Your task to perform on an android device: Go to notification settings Image 0: 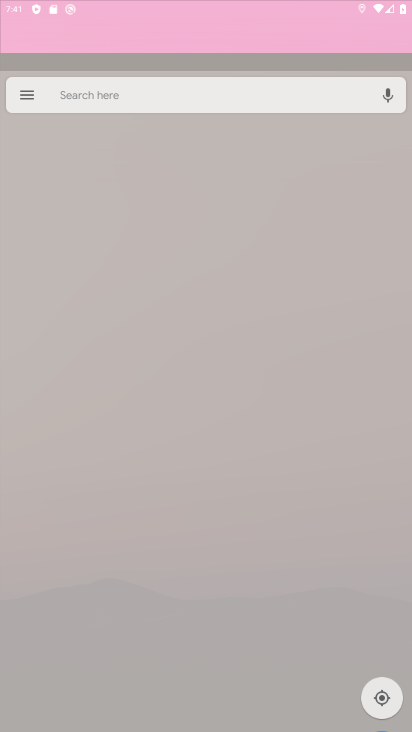
Step 0: click (240, 376)
Your task to perform on an android device: Go to notification settings Image 1: 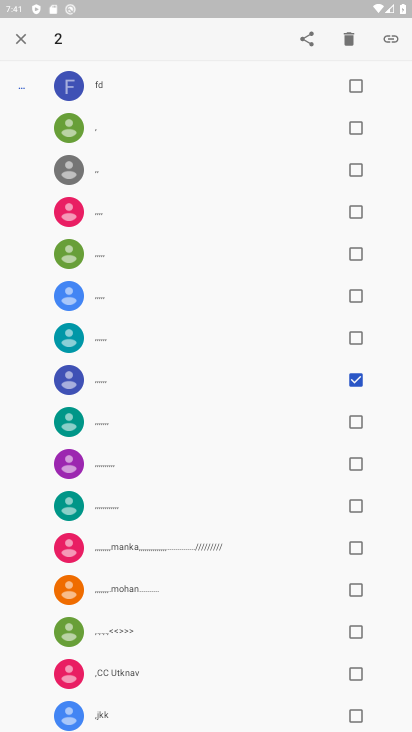
Step 1: press home button
Your task to perform on an android device: Go to notification settings Image 2: 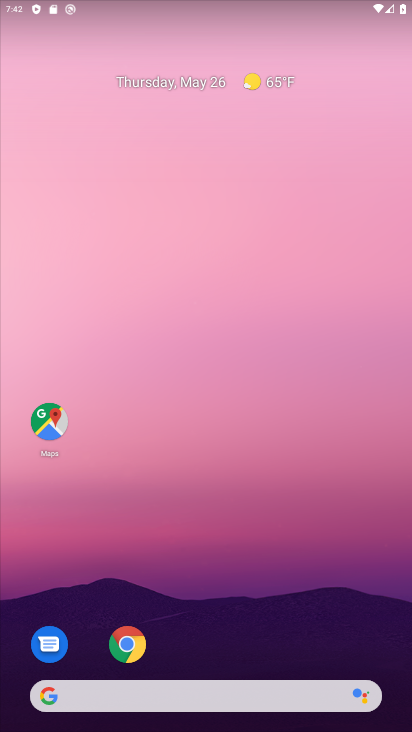
Step 2: drag from (180, 659) to (189, 82)
Your task to perform on an android device: Go to notification settings Image 3: 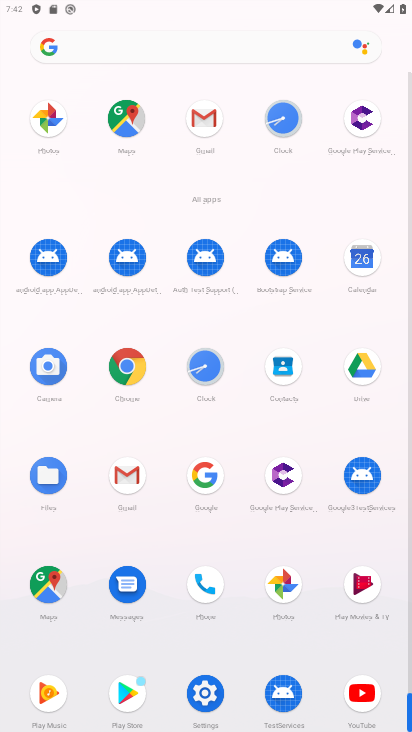
Step 3: click (211, 689)
Your task to perform on an android device: Go to notification settings Image 4: 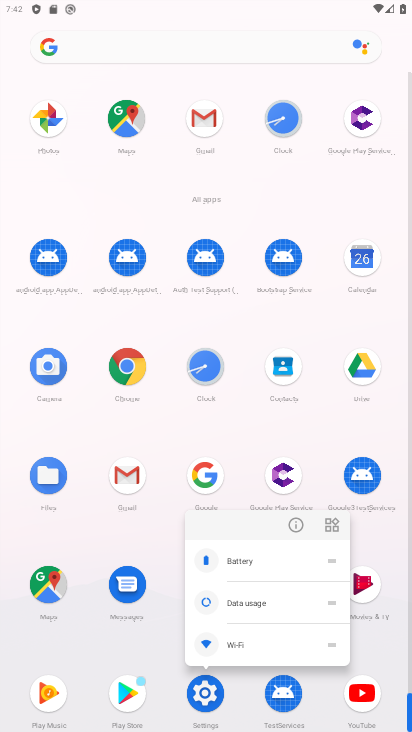
Step 4: click (293, 521)
Your task to perform on an android device: Go to notification settings Image 5: 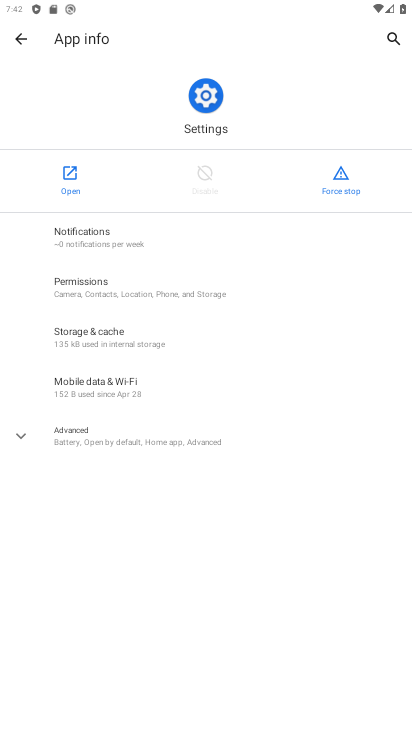
Step 5: click (65, 168)
Your task to perform on an android device: Go to notification settings Image 6: 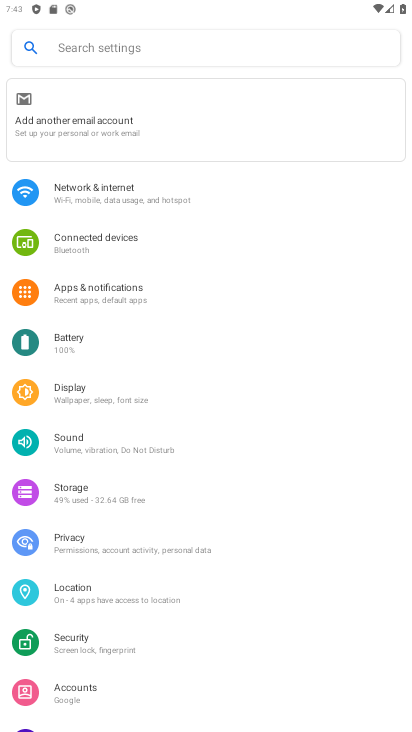
Step 6: click (67, 303)
Your task to perform on an android device: Go to notification settings Image 7: 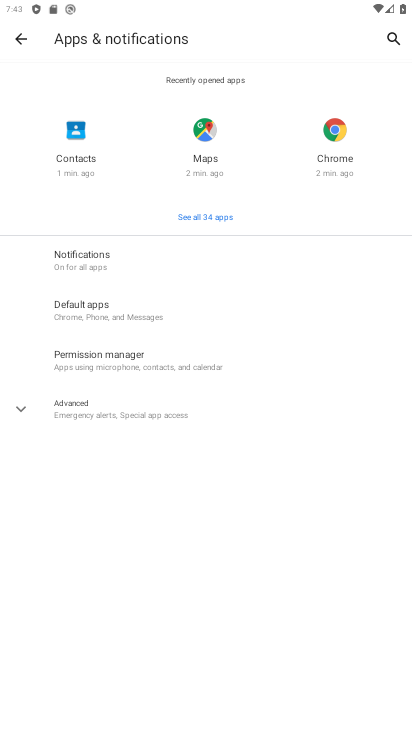
Step 7: click (109, 255)
Your task to perform on an android device: Go to notification settings Image 8: 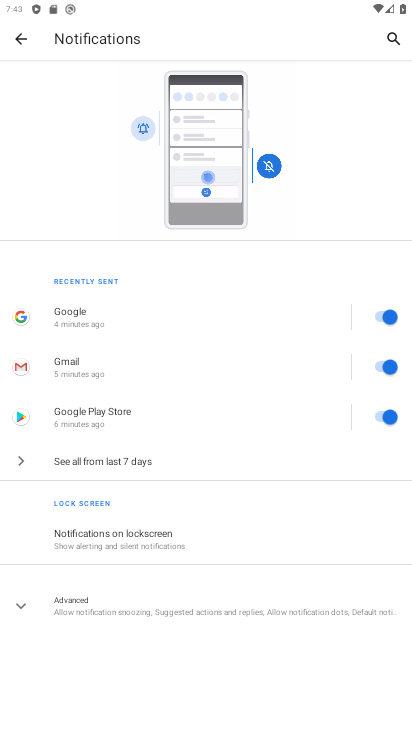
Step 8: drag from (252, 517) to (289, 126)
Your task to perform on an android device: Go to notification settings Image 9: 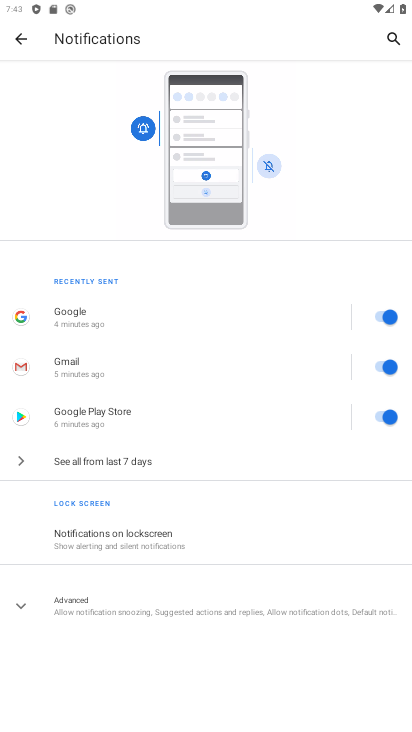
Step 9: click (84, 592)
Your task to perform on an android device: Go to notification settings Image 10: 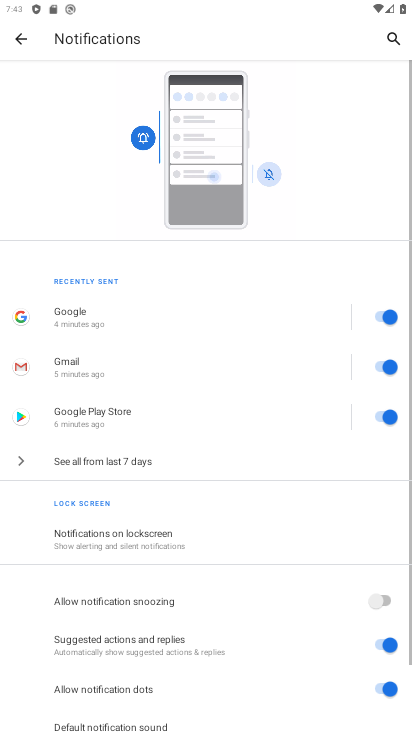
Step 10: drag from (407, 399) to (364, 157)
Your task to perform on an android device: Go to notification settings Image 11: 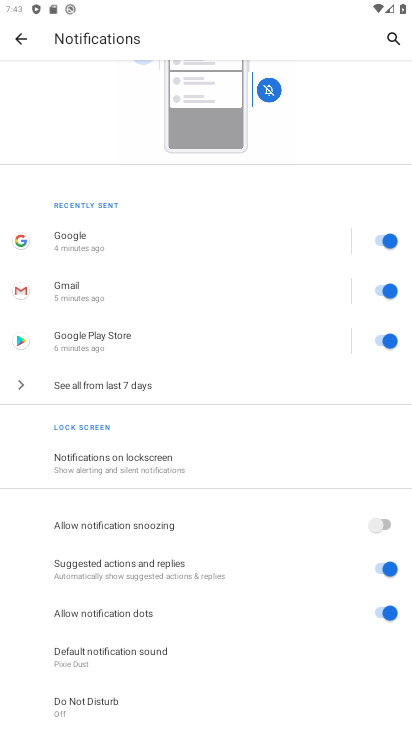
Step 11: click (373, 528)
Your task to perform on an android device: Go to notification settings Image 12: 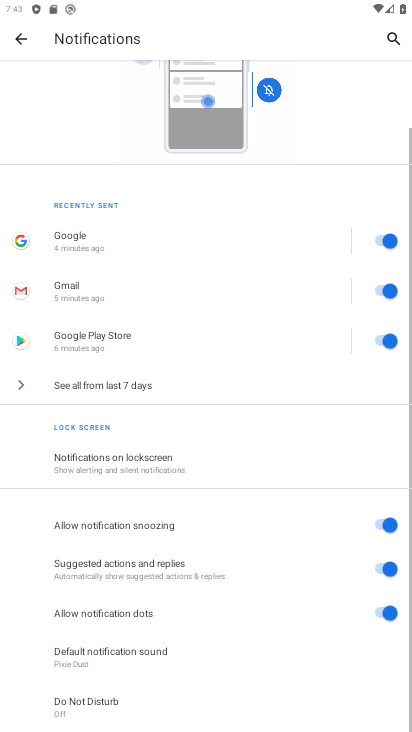
Step 12: task complete